Your task to perform on an android device: Open display settings Image 0: 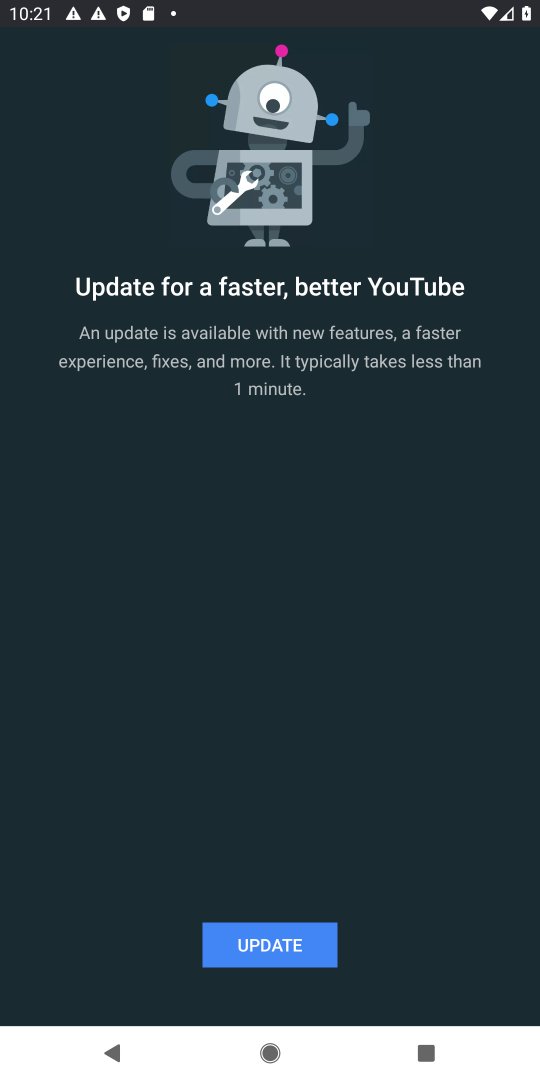
Step 0: press home button
Your task to perform on an android device: Open display settings Image 1: 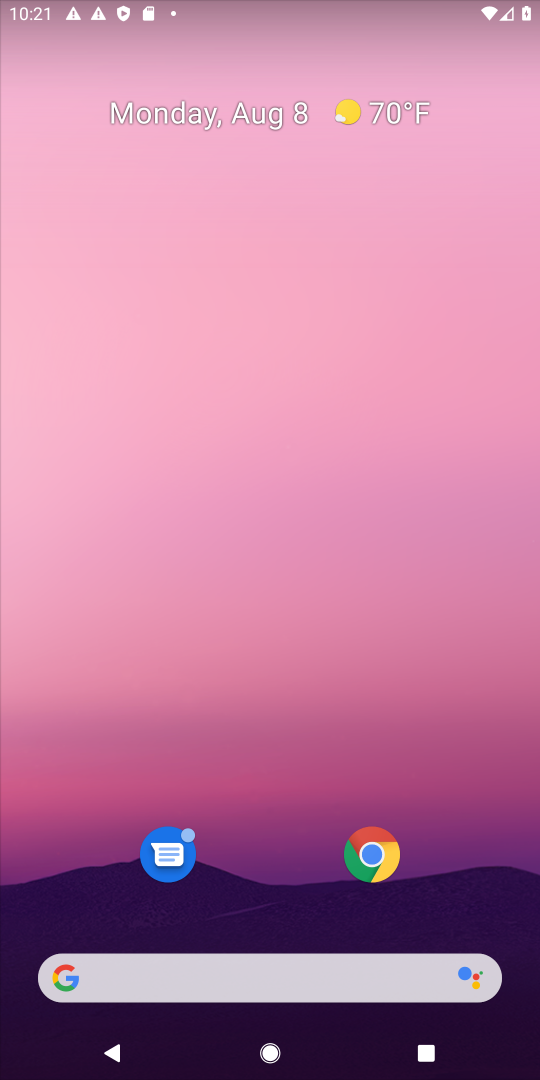
Step 1: drag from (286, 820) to (358, 248)
Your task to perform on an android device: Open display settings Image 2: 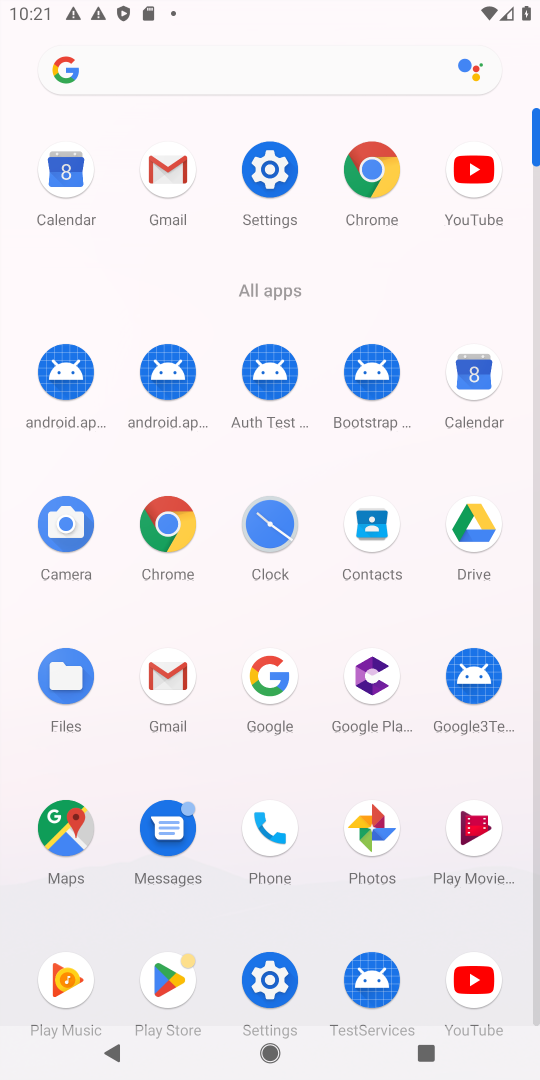
Step 2: click (277, 988)
Your task to perform on an android device: Open display settings Image 3: 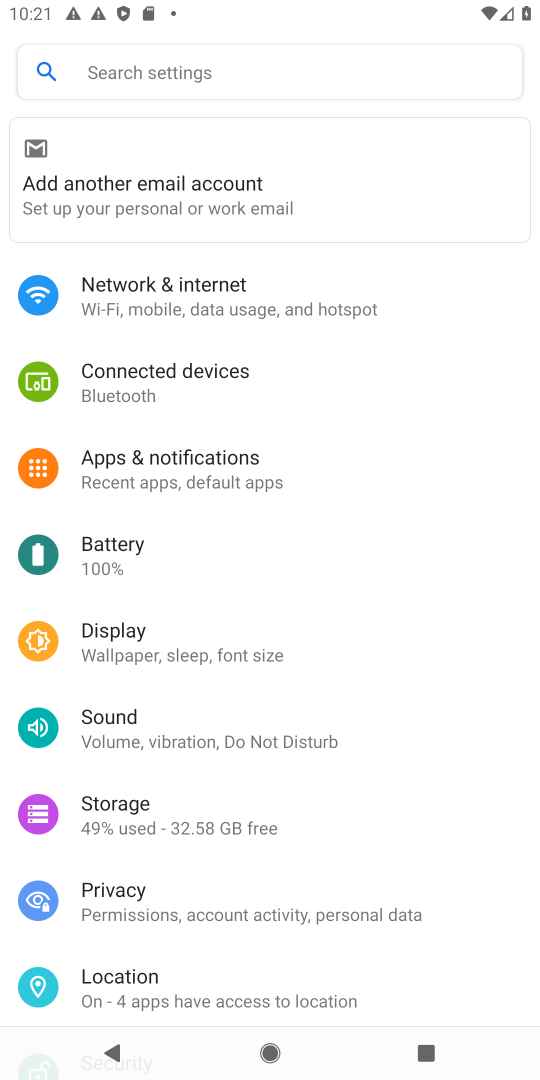
Step 3: task complete